Your task to perform on an android device: turn on showing notifications on the lock screen Image 0: 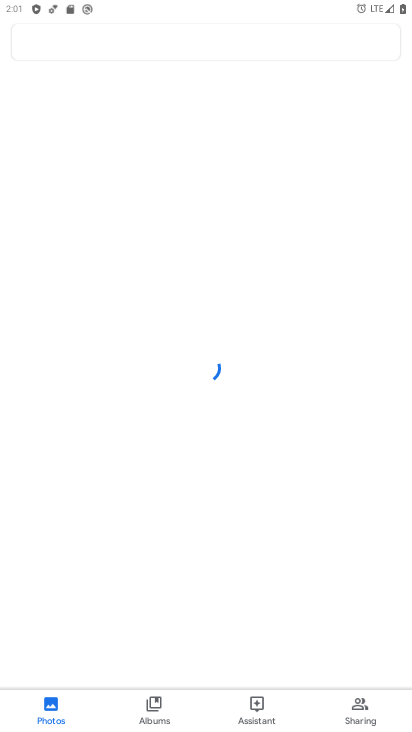
Step 0: press home button
Your task to perform on an android device: turn on showing notifications on the lock screen Image 1: 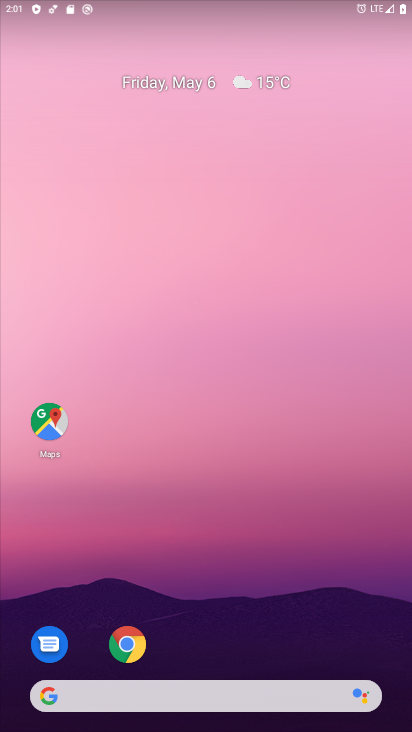
Step 1: drag from (269, 616) to (242, 224)
Your task to perform on an android device: turn on showing notifications on the lock screen Image 2: 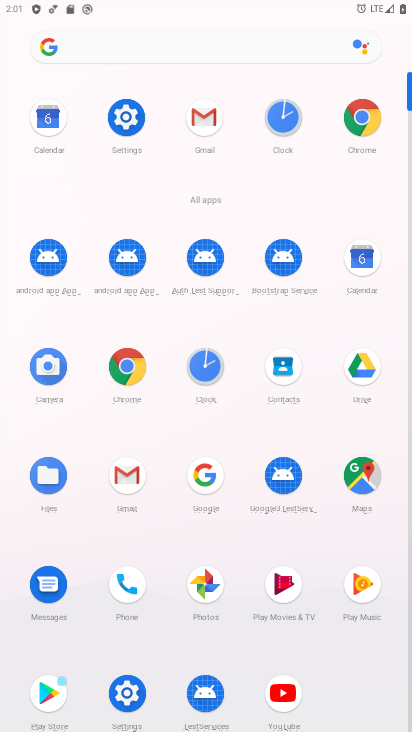
Step 2: click (131, 106)
Your task to perform on an android device: turn on showing notifications on the lock screen Image 3: 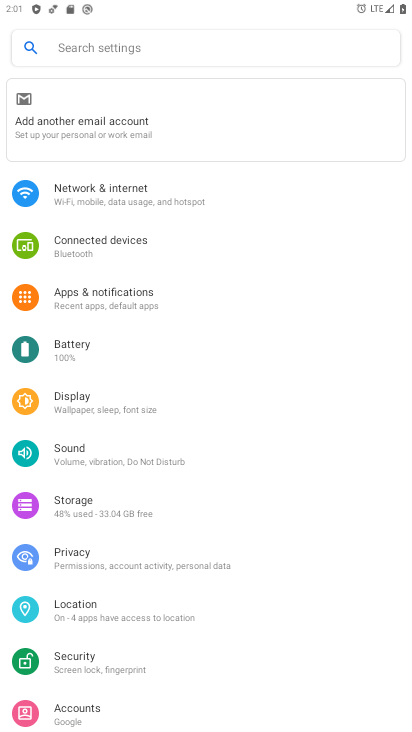
Step 3: click (148, 296)
Your task to perform on an android device: turn on showing notifications on the lock screen Image 4: 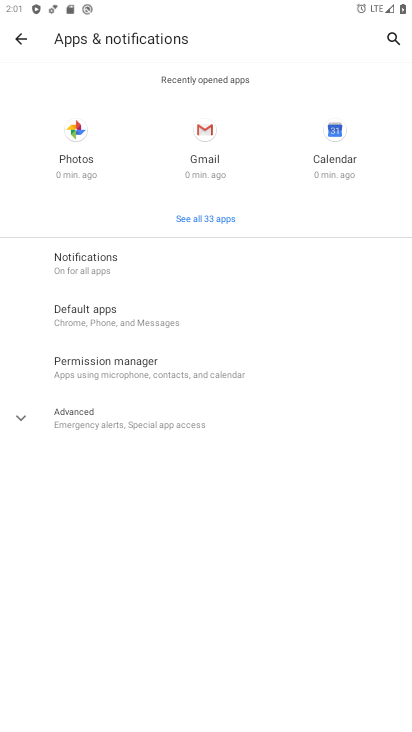
Step 4: click (169, 266)
Your task to perform on an android device: turn on showing notifications on the lock screen Image 5: 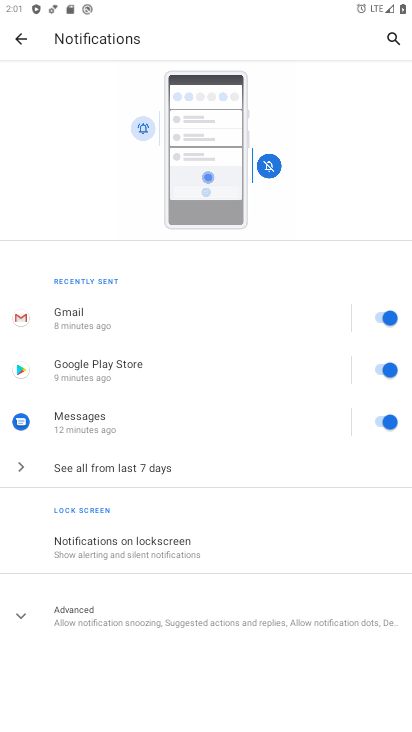
Step 5: click (206, 540)
Your task to perform on an android device: turn on showing notifications on the lock screen Image 6: 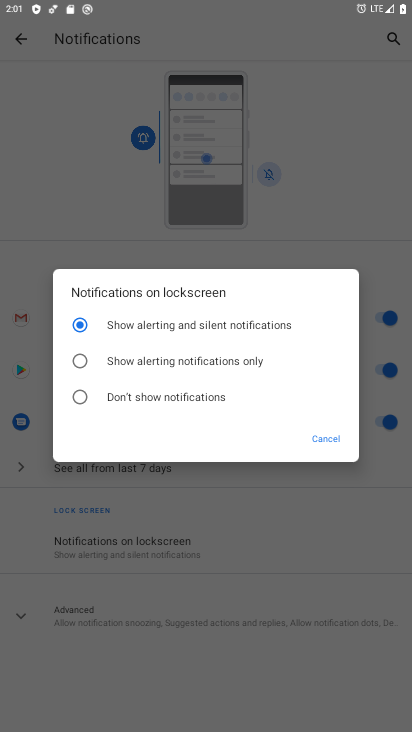
Step 6: task complete